Your task to perform on an android device: clear all cookies in the chrome app Image 0: 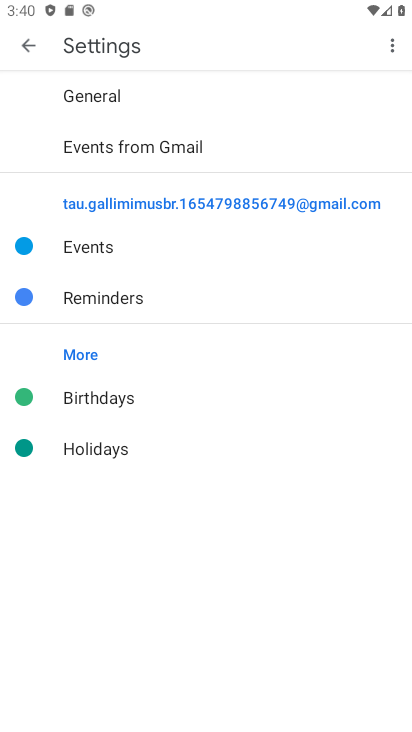
Step 0: press home button
Your task to perform on an android device: clear all cookies in the chrome app Image 1: 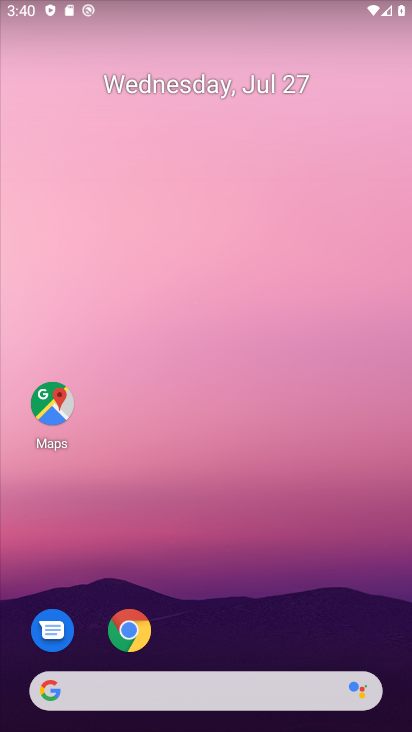
Step 1: click (137, 627)
Your task to perform on an android device: clear all cookies in the chrome app Image 2: 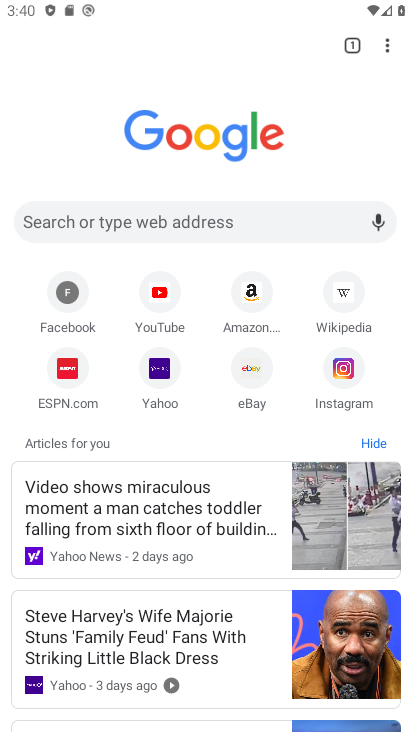
Step 2: click (388, 51)
Your task to perform on an android device: clear all cookies in the chrome app Image 3: 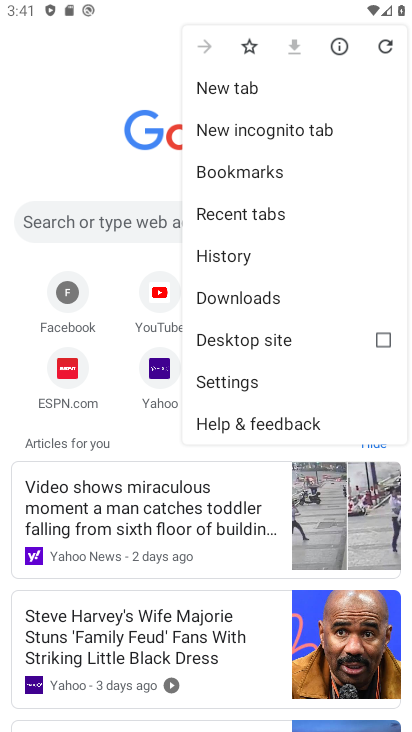
Step 3: click (265, 255)
Your task to perform on an android device: clear all cookies in the chrome app Image 4: 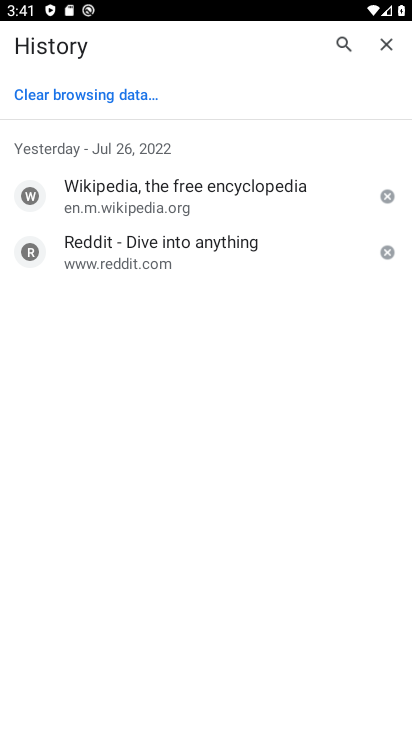
Step 4: click (75, 92)
Your task to perform on an android device: clear all cookies in the chrome app Image 5: 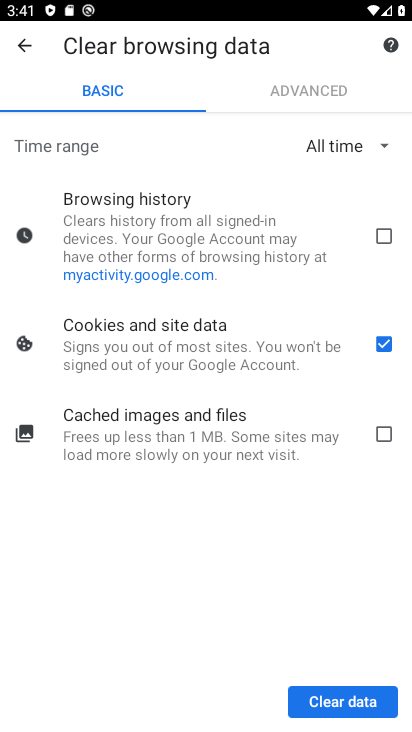
Step 5: click (350, 691)
Your task to perform on an android device: clear all cookies in the chrome app Image 6: 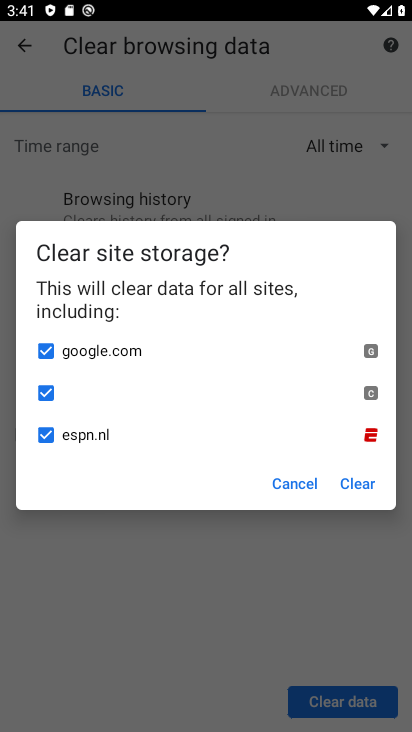
Step 6: task complete